Your task to perform on an android device: clear all cookies in the chrome app Image 0: 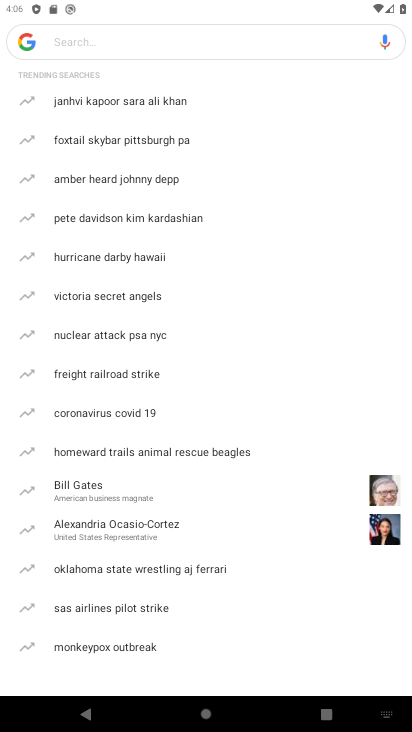
Step 0: press home button
Your task to perform on an android device: clear all cookies in the chrome app Image 1: 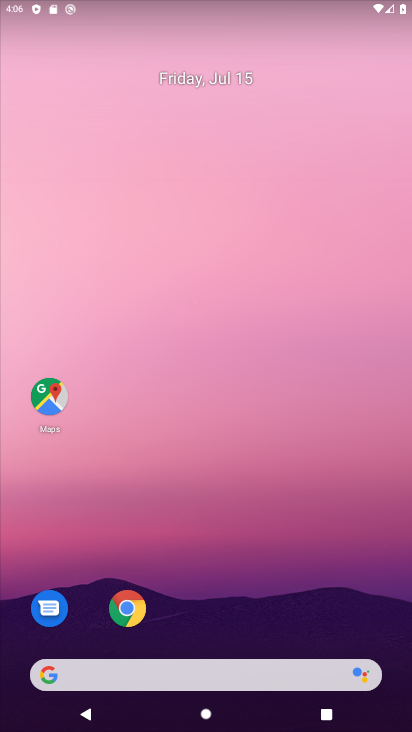
Step 1: click (135, 614)
Your task to perform on an android device: clear all cookies in the chrome app Image 2: 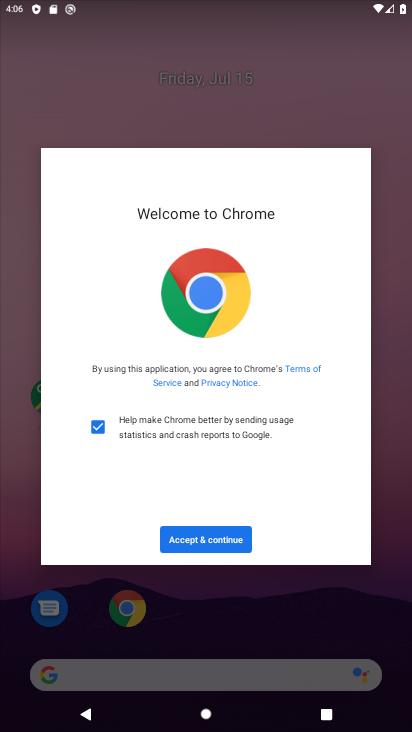
Step 2: click (221, 539)
Your task to perform on an android device: clear all cookies in the chrome app Image 3: 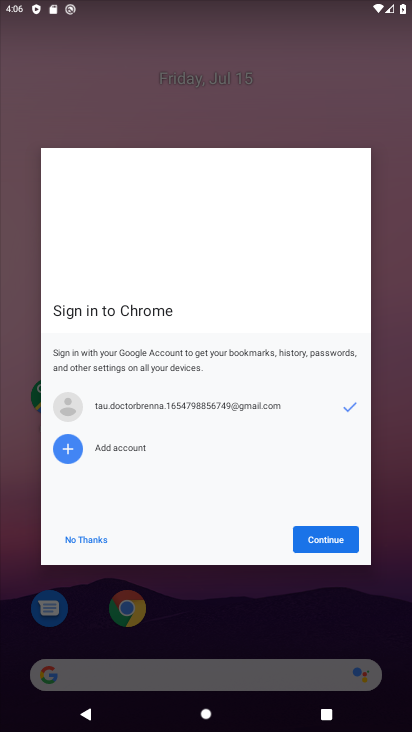
Step 3: click (344, 546)
Your task to perform on an android device: clear all cookies in the chrome app Image 4: 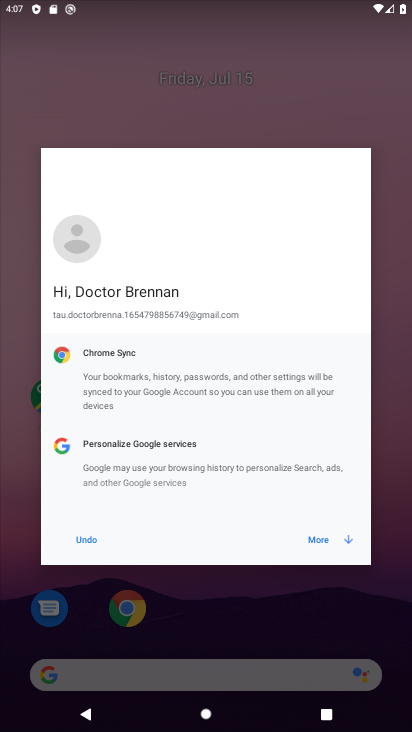
Step 4: click (311, 551)
Your task to perform on an android device: clear all cookies in the chrome app Image 5: 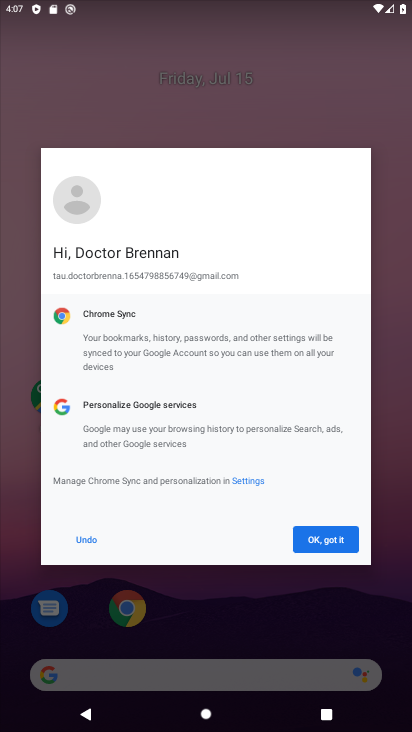
Step 5: click (320, 549)
Your task to perform on an android device: clear all cookies in the chrome app Image 6: 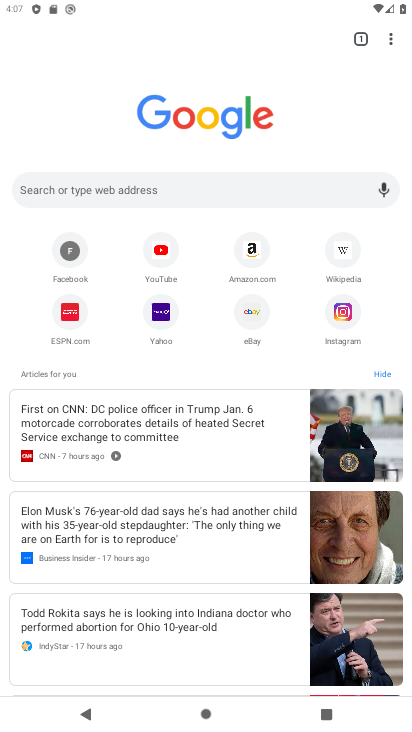
Step 6: click (386, 21)
Your task to perform on an android device: clear all cookies in the chrome app Image 7: 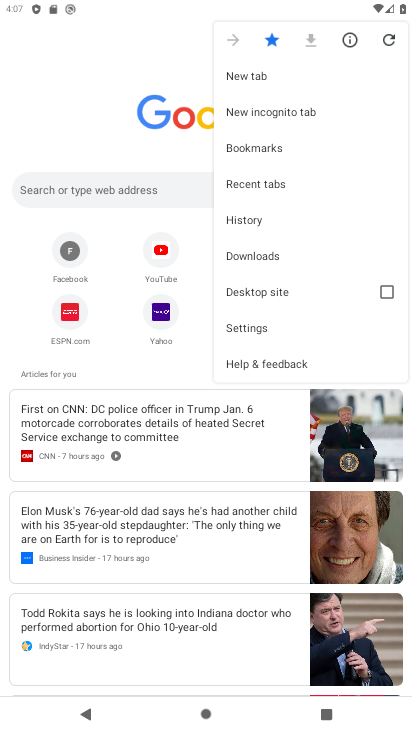
Step 7: click (245, 217)
Your task to perform on an android device: clear all cookies in the chrome app Image 8: 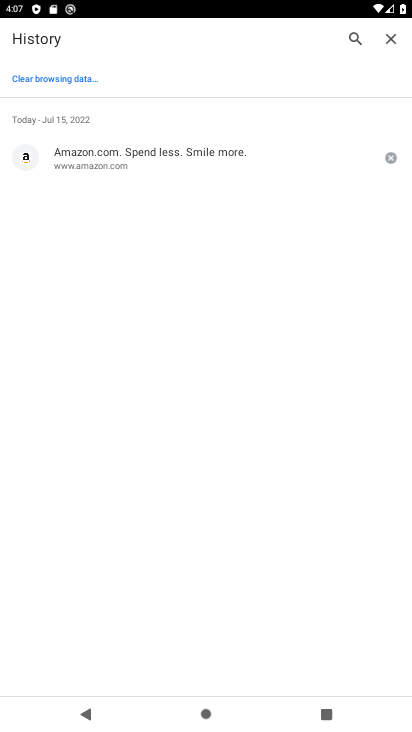
Step 8: click (58, 80)
Your task to perform on an android device: clear all cookies in the chrome app Image 9: 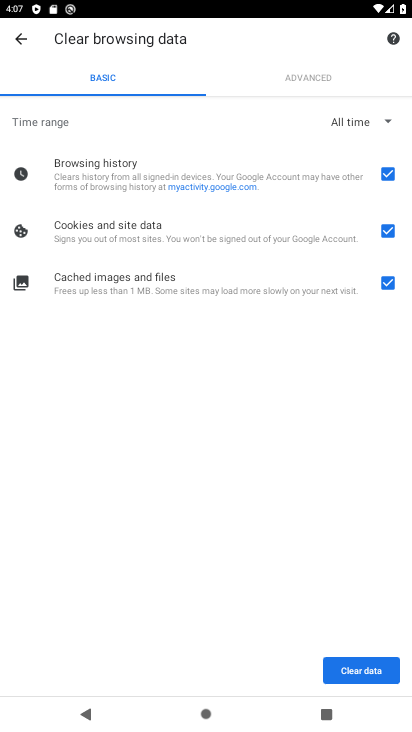
Step 9: click (365, 673)
Your task to perform on an android device: clear all cookies in the chrome app Image 10: 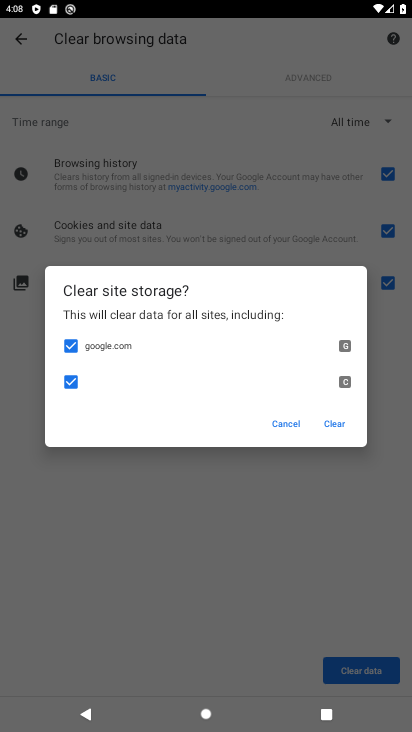
Step 10: click (289, 423)
Your task to perform on an android device: clear all cookies in the chrome app Image 11: 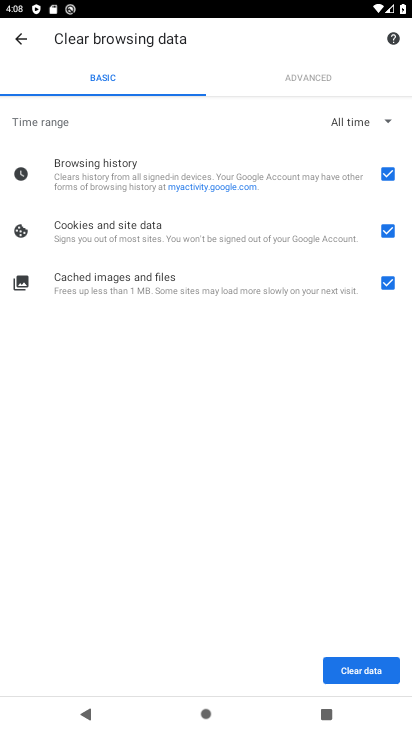
Step 11: click (370, 303)
Your task to perform on an android device: clear all cookies in the chrome app Image 12: 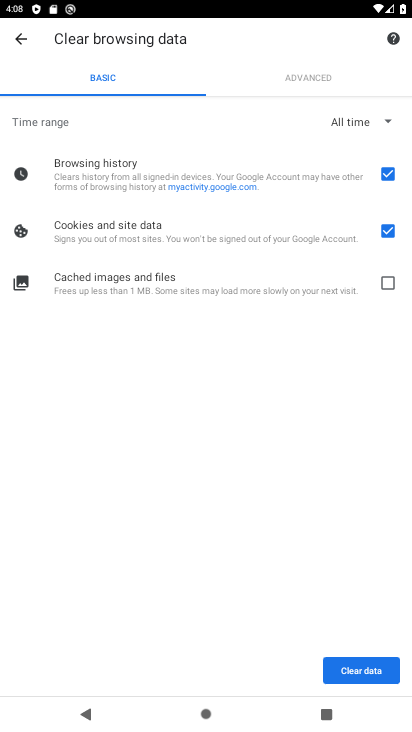
Step 12: click (382, 160)
Your task to perform on an android device: clear all cookies in the chrome app Image 13: 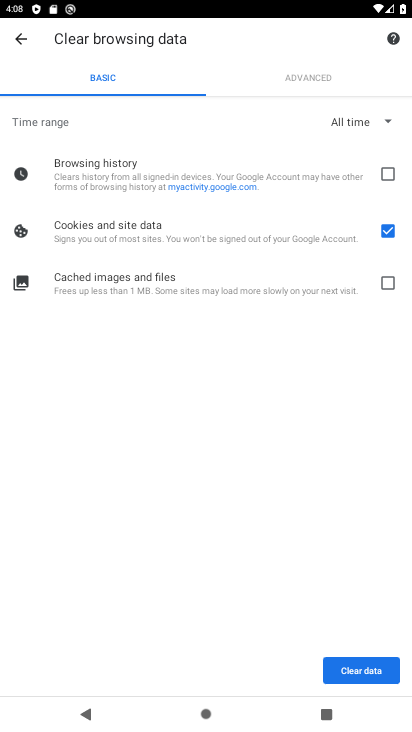
Step 13: click (381, 668)
Your task to perform on an android device: clear all cookies in the chrome app Image 14: 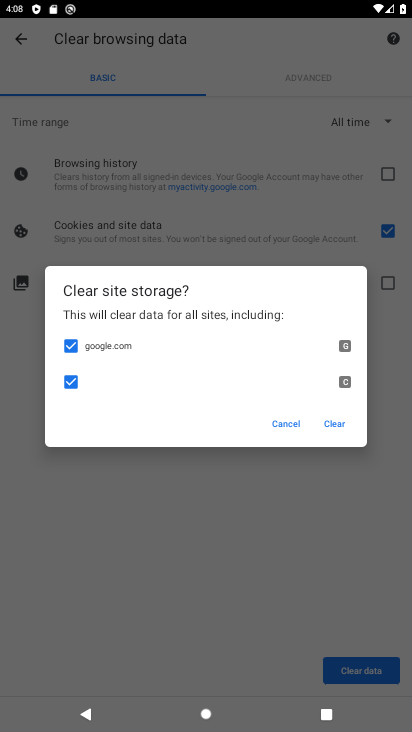
Step 14: click (333, 421)
Your task to perform on an android device: clear all cookies in the chrome app Image 15: 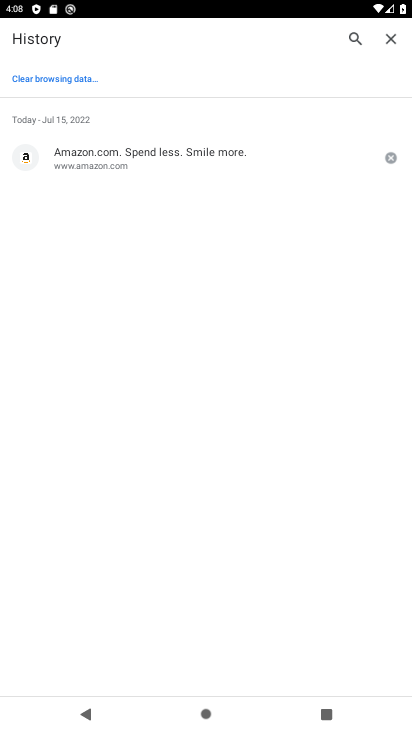
Step 15: task complete